Your task to perform on an android device: toggle notifications settings in the gmail app Image 0: 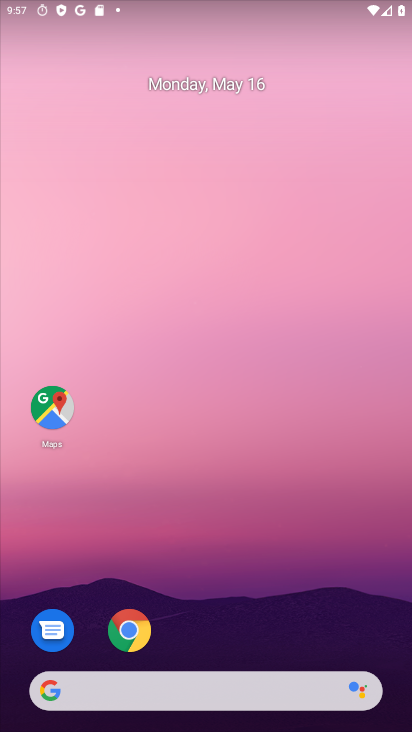
Step 0: drag from (218, 621) to (228, 77)
Your task to perform on an android device: toggle notifications settings in the gmail app Image 1: 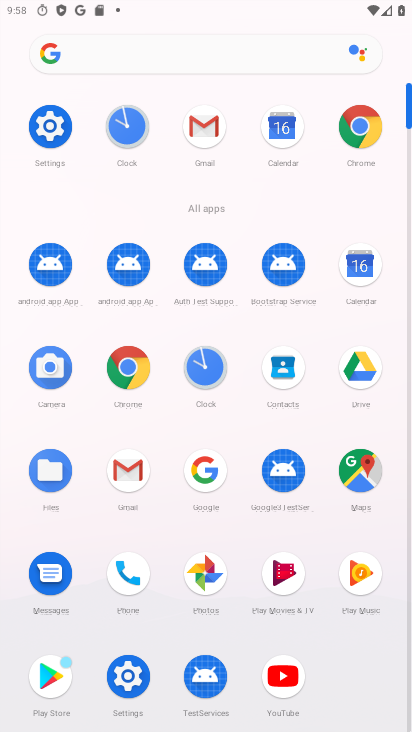
Step 1: click (145, 475)
Your task to perform on an android device: toggle notifications settings in the gmail app Image 2: 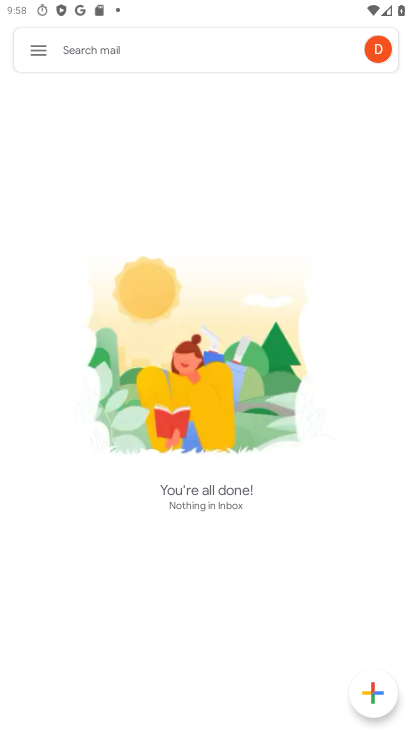
Step 2: click (41, 49)
Your task to perform on an android device: toggle notifications settings in the gmail app Image 3: 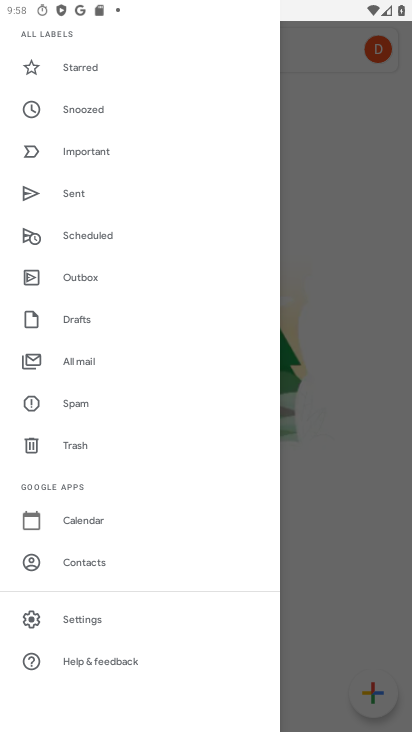
Step 3: click (91, 622)
Your task to perform on an android device: toggle notifications settings in the gmail app Image 4: 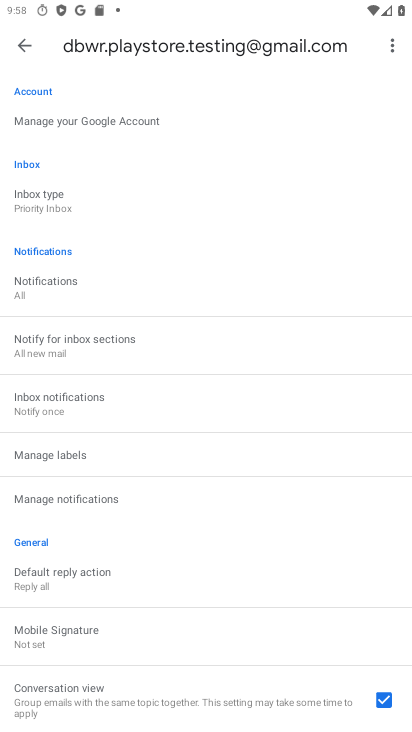
Step 4: click (19, 46)
Your task to perform on an android device: toggle notifications settings in the gmail app Image 5: 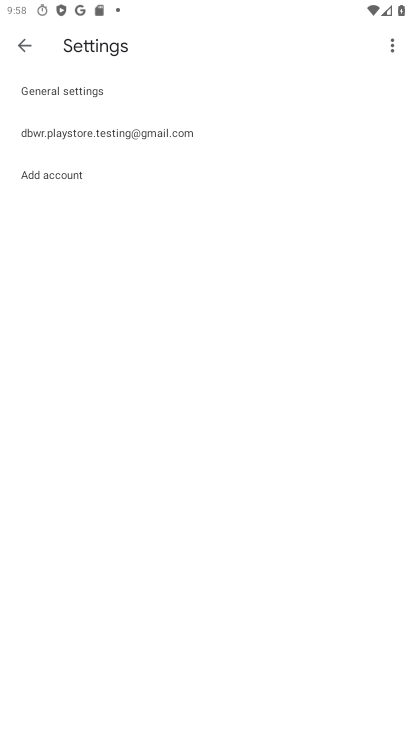
Step 5: click (103, 95)
Your task to perform on an android device: toggle notifications settings in the gmail app Image 6: 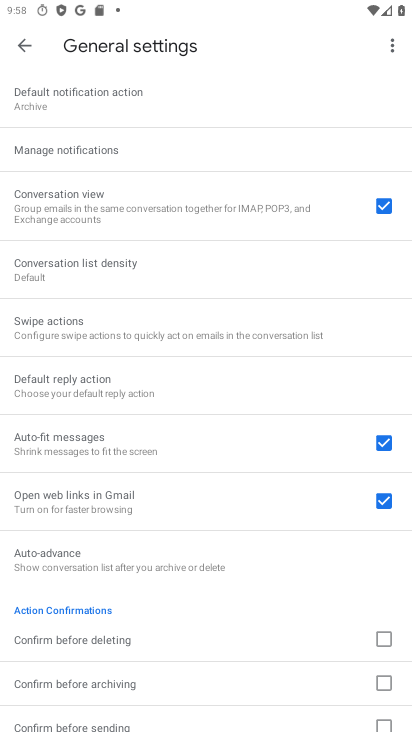
Step 6: click (109, 148)
Your task to perform on an android device: toggle notifications settings in the gmail app Image 7: 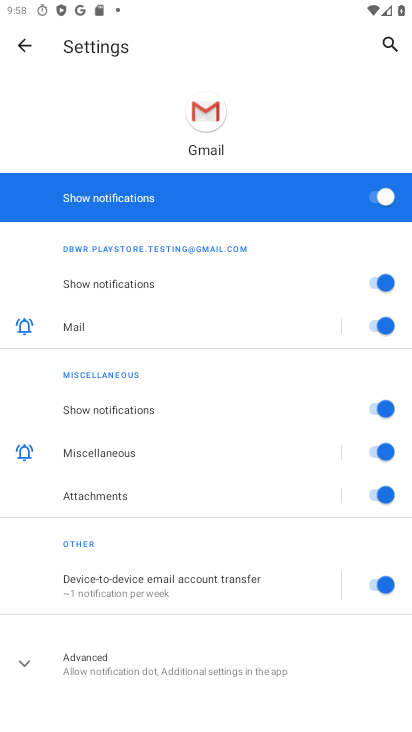
Step 7: click (360, 192)
Your task to perform on an android device: toggle notifications settings in the gmail app Image 8: 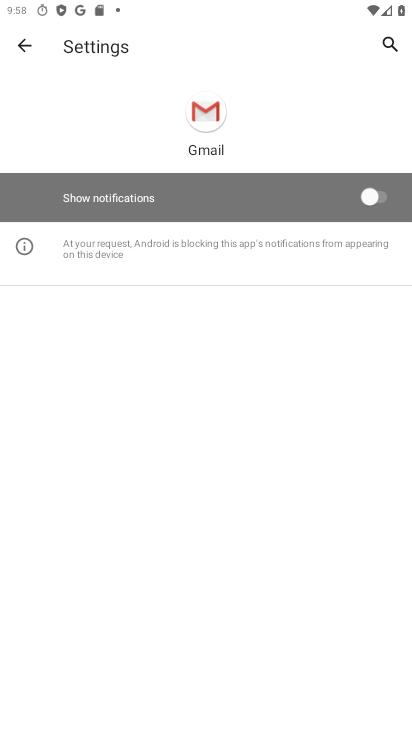
Step 8: task complete